Your task to perform on an android device: change your default location settings in chrome Image 0: 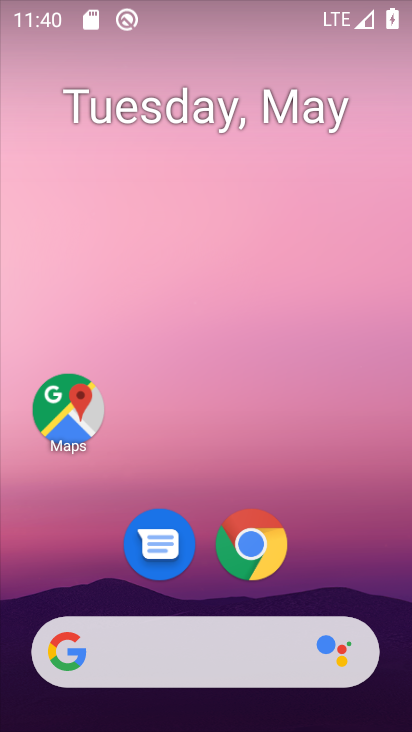
Step 0: drag from (236, 439) to (234, 220)
Your task to perform on an android device: change your default location settings in chrome Image 1: 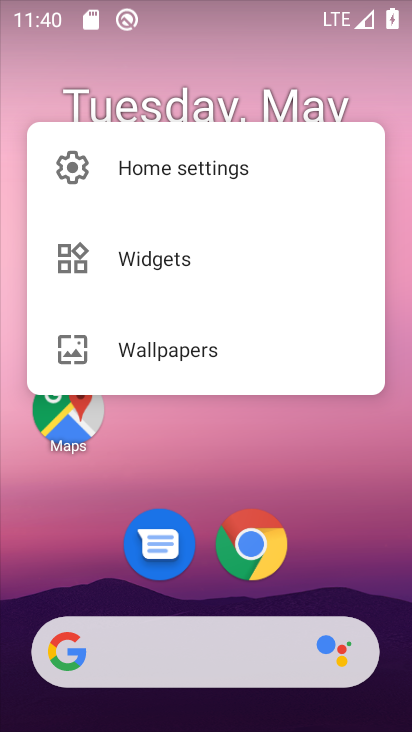
Step 1: click (245, 458)
Your task to perform on an android device: change your default location settings in chrome Image 2: 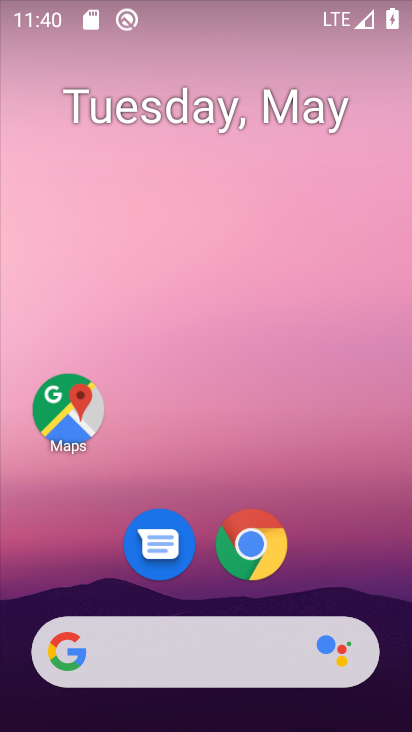
Step 2: drag from (233, 466) to (269, 120)
Your task to perform on an android device: change your default location settings in chrome Image 3: 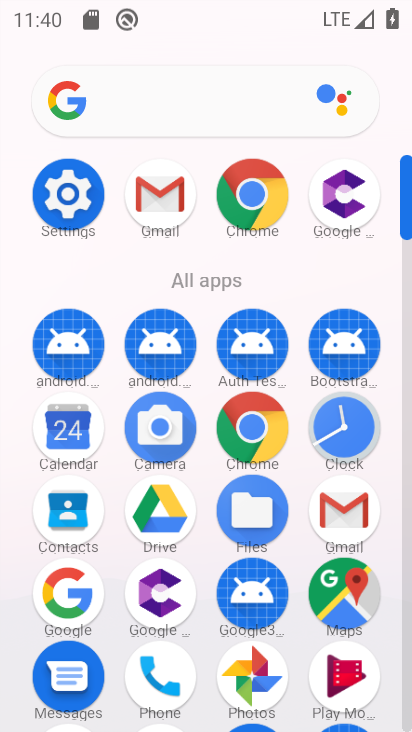
Step 3: drag from (205, 270) to (224, 149)
Your task to perform on an android device: change your default location settings in chrome Image 4: 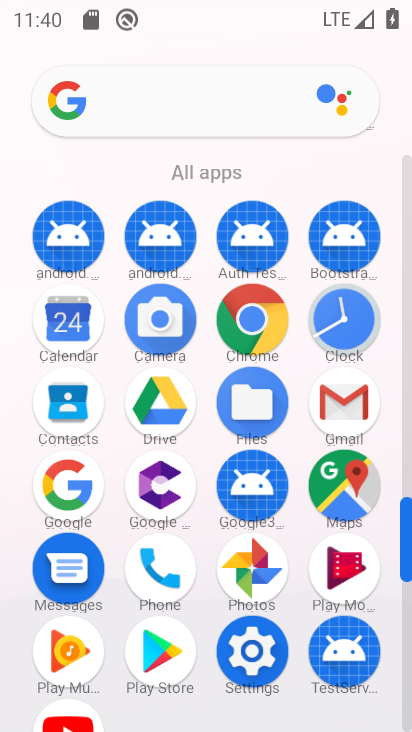
Step 4: click (264, 319)
Your task to perform on an android device: change your default location settings in chrome Image 5: 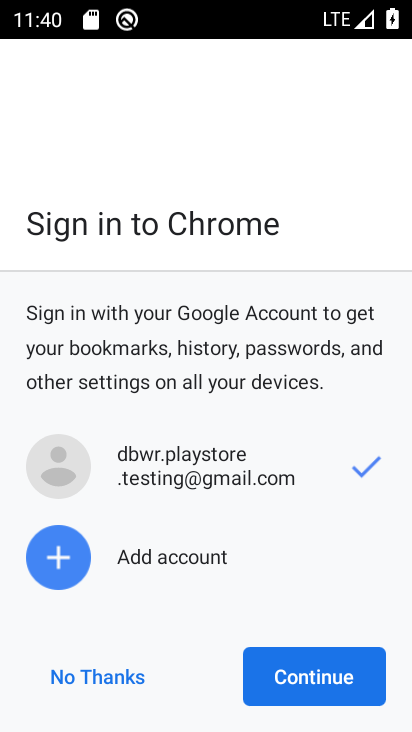
Step 5: click (324, 692)
Your task to perform on an android device: change your default location settings in chrome Image 6: 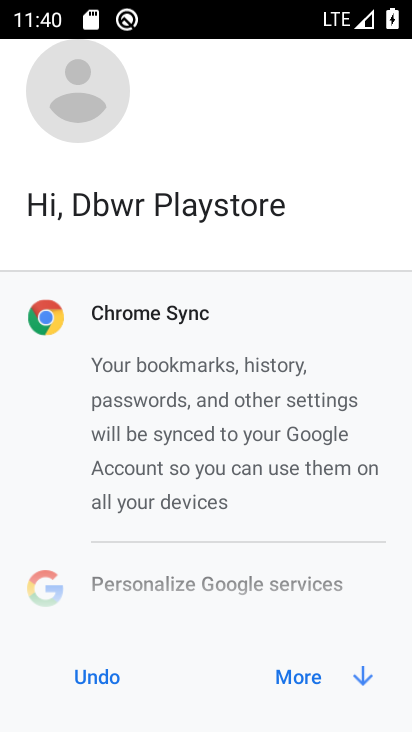
Step 6: click (326, 682)
Your task to perform on an android device: change your default location settings in chrome Image 7: 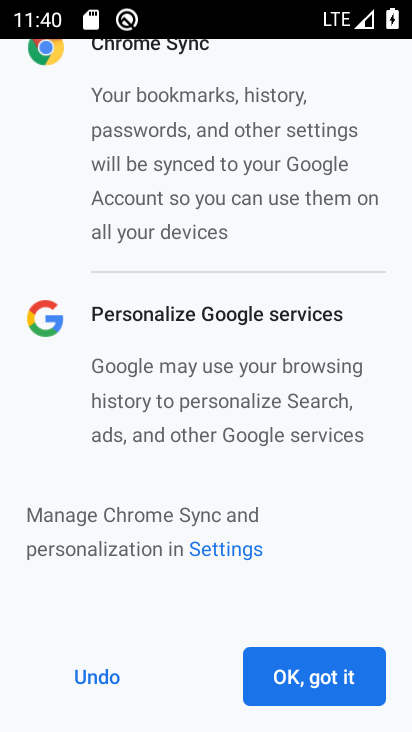
Step 7: click (325, 680)
Your task to perform on an android device: change your default location settings in chrome Image 8: 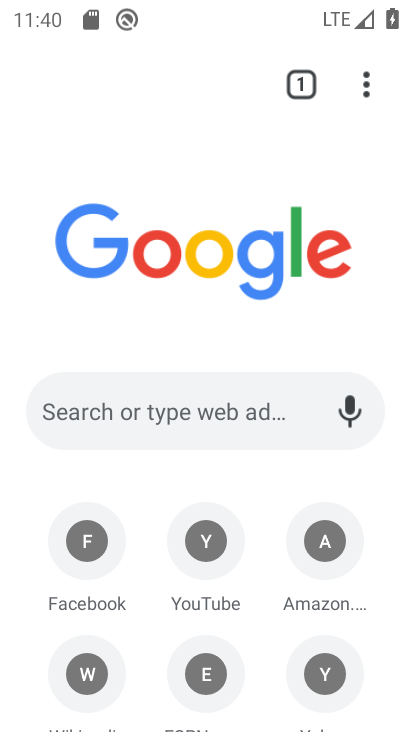
Step 8: click (364, 95)
Your task to perform on an android device: change your default location settings in chrome Image 9: 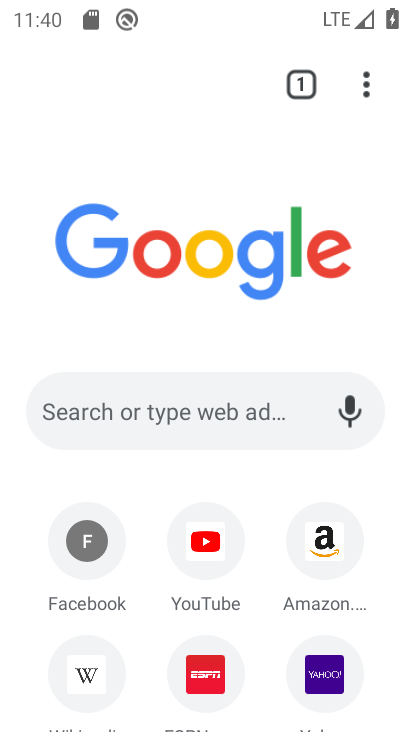
Step 9: click (372, 86)
Your task to perform on an android device: change your default location settings in chrome Image 10: 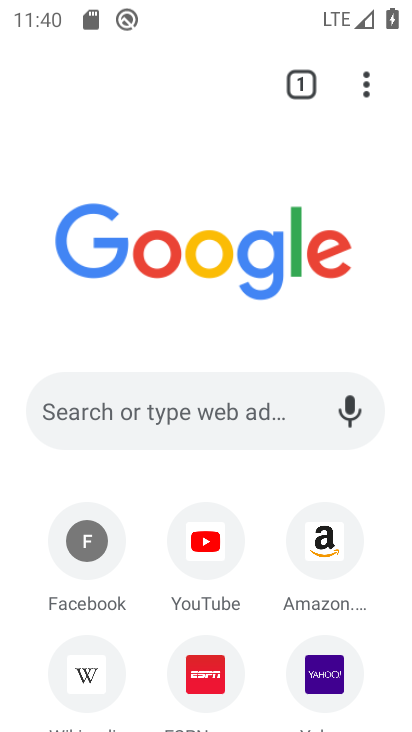
Step 10: click (362, 89)
Your task to perform on an android device: change your default location settings in chrome Image 11: 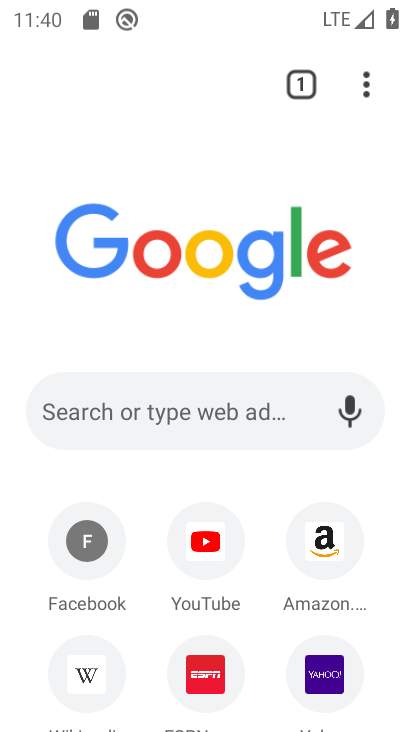
Step 11: click (369, 88)
Your task to perform on an android device: change your default location settings in chrome Image 12: 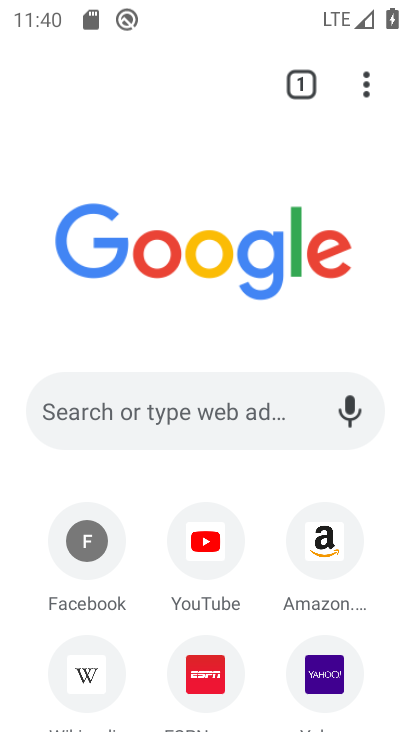
Step 12: click (360, 92)
Your task to perform on an android device: change your default location settings in chrome Image 13: 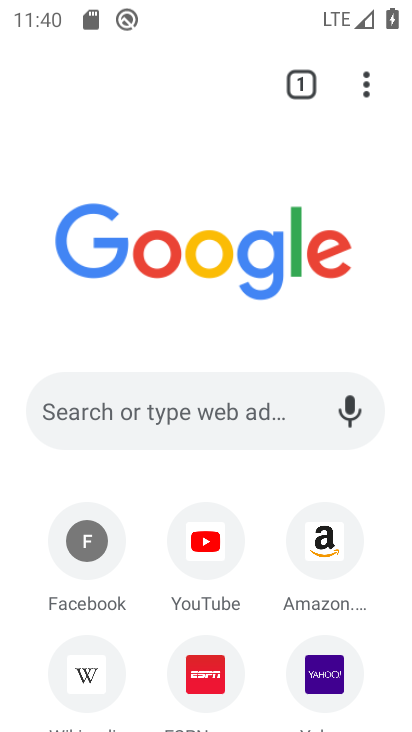
Step 13: click (367, 99)
Your task to perform on an android device: change your default location settings in chrome Image 14: 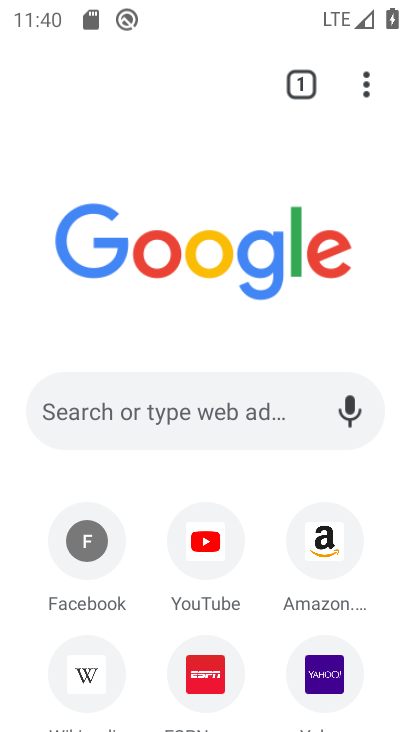
Step 14: click (370, 88)
Your task to perform on an android device: change your default location settings in chrome Image 15: 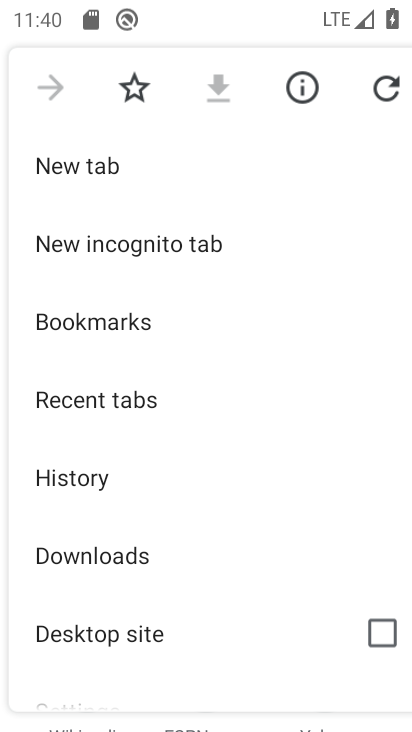
Step 15: drag from (155, 509) to (206, 193)
Your task to perform on an android device: change your default location settings in chrome Image 16: 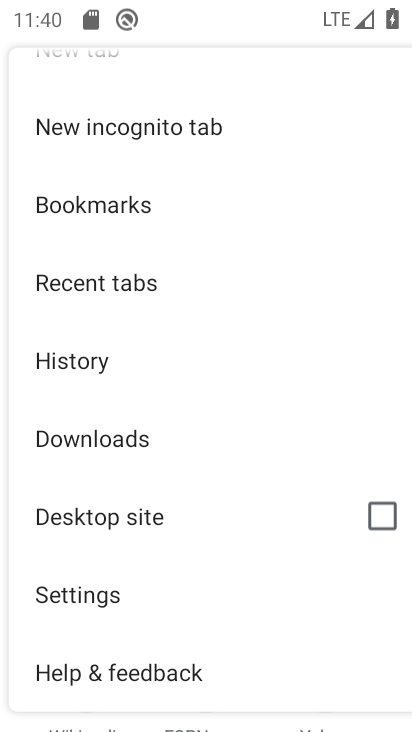
Step 16: click (126, 596)
Your task to perform on an android device: change your default location settings in chrome Image 17: 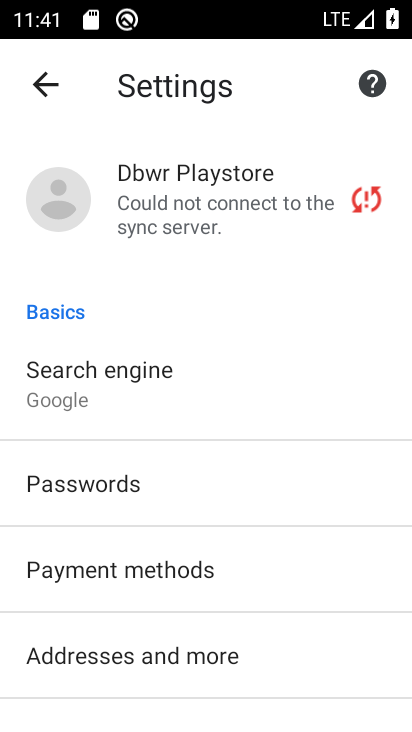
Step 17: drag from (138, 626) to (243, 242)
Your task to perform on an android device: change your default location settings in chrome Image 18: 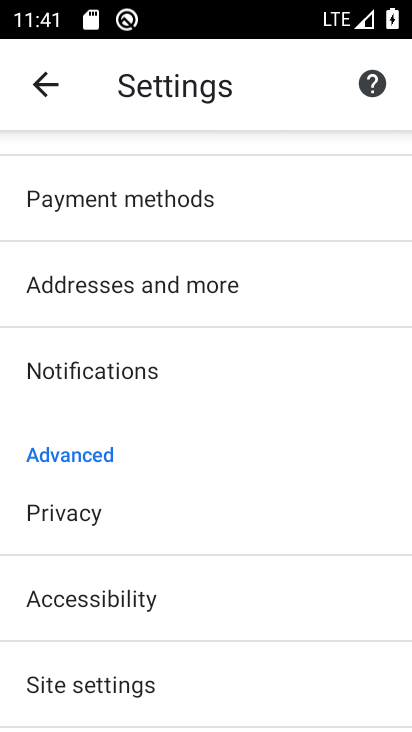
Step 18: click (134, 680)
Your task to perform on an android device: change your default location settings in chrome Image 19: 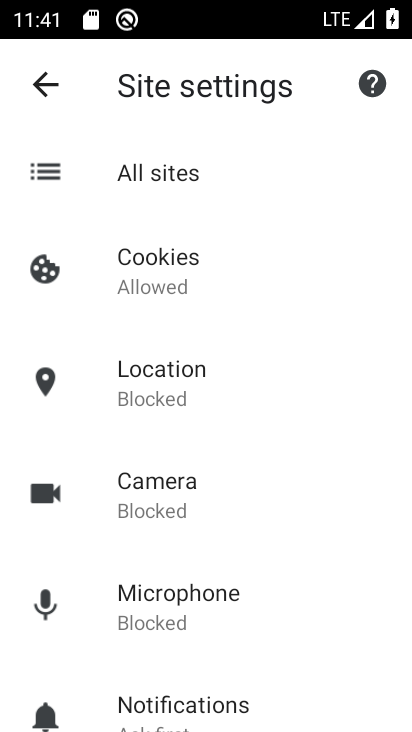
Step 19: click (213, 405)
Your task to perform on an android device: change your default location settings in chrome Image 20: 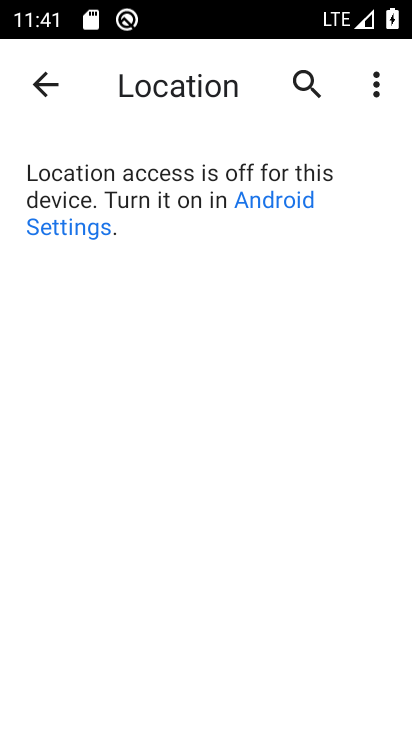
Step 20: click (278, 193)
Your task to perform on an android device: change your default location settings in chrome Image 21: 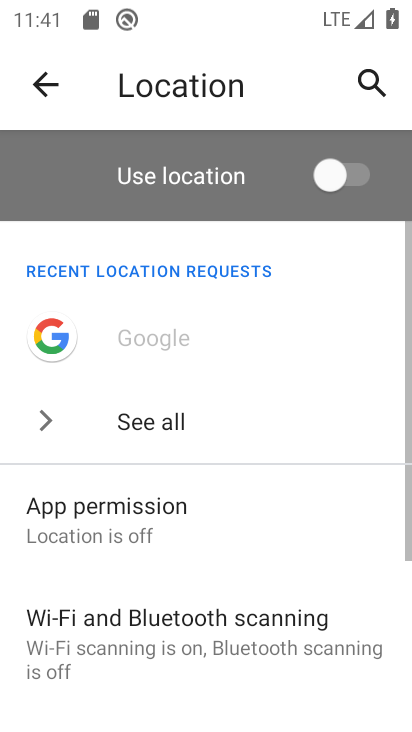
Step 21: click (325, 192)
Your task to perform on an android device: change your default location settings in chrome Image 22: 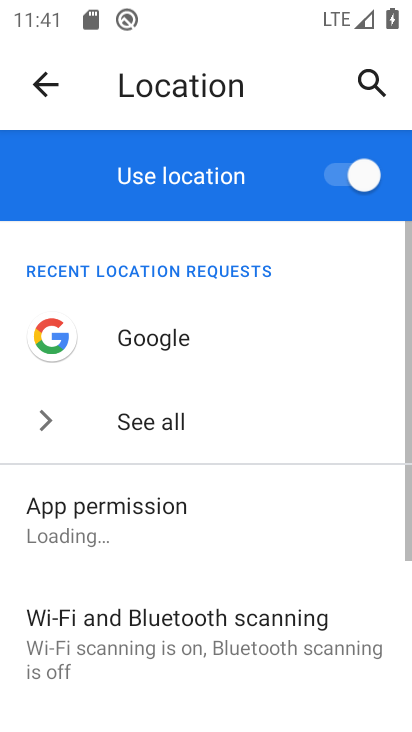
Step 22: task complete